Your task to perform on an android device: Is it going to rain this weekend? Image 0: 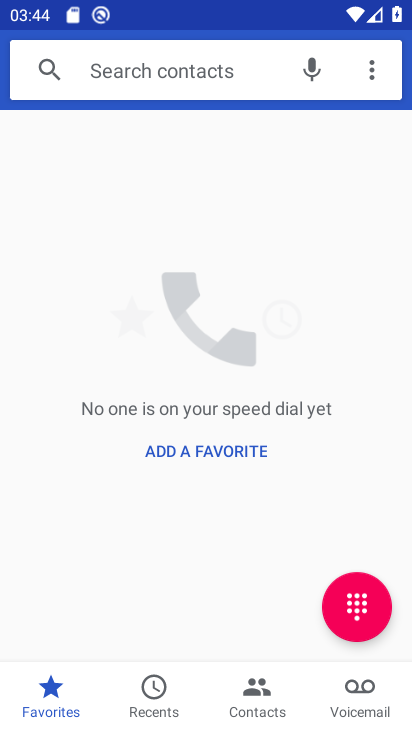
Step 0: press home button
Your task to perform on an android device: Is it going to rain this weekend? Image 1: 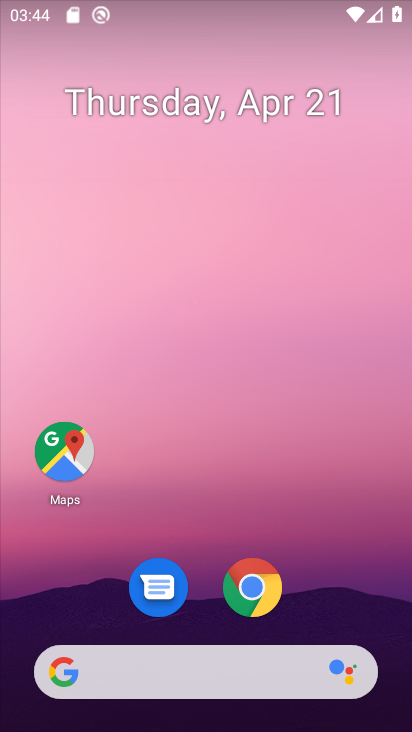
Step 1: click (247, 667)
Your task to perform on an android device: Is it going to rain this weekend? Image 2: 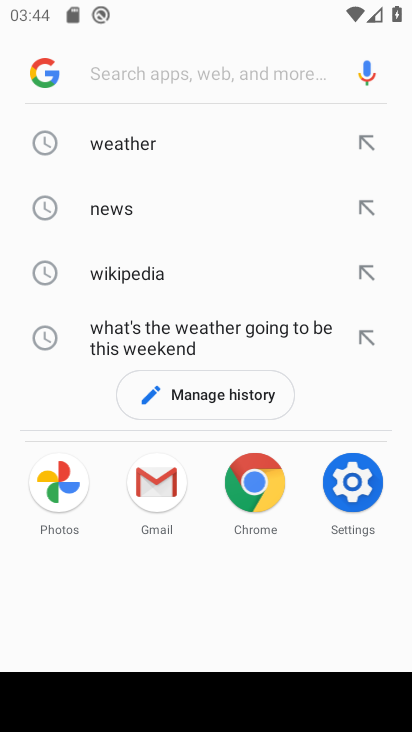
Step 2: click (146, 150)
Your task to perform on an android device: Is it going to rain this weekend? Image 3: 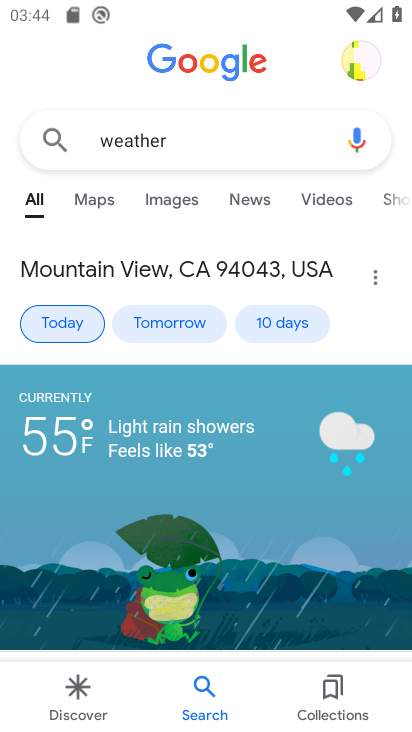
Step 3: click (283, 323)
Your task to perform on an android device: Is it going to rain this weekend? Image 4: 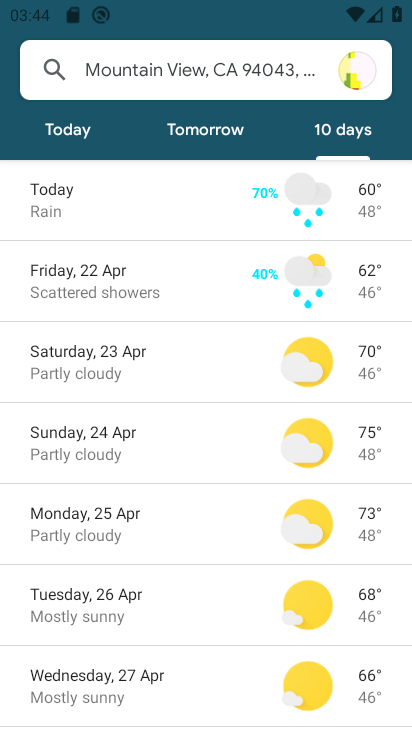
Step 4: task complete